Your task to perform on an android device: turn off improve location accuracy Image 0: 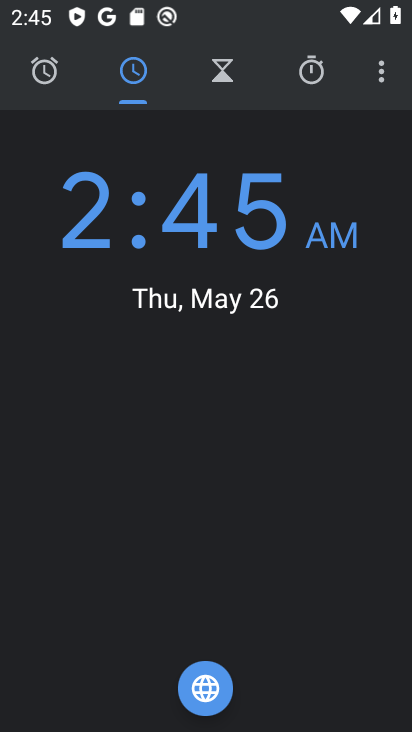
Step 0: press home button
Your task to perform on an android device: turn off improve location accuracy Image 1: 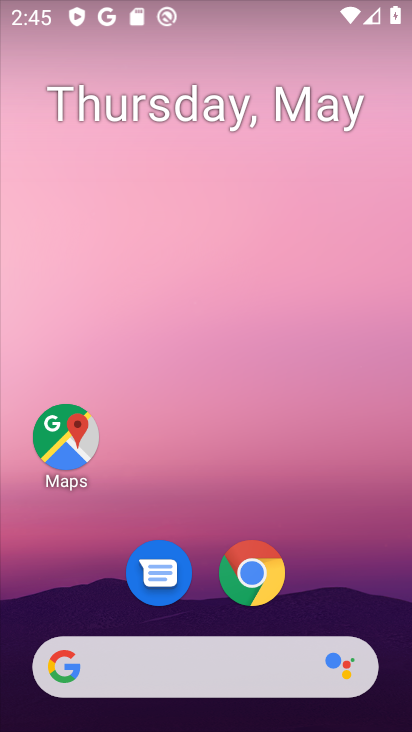
Step 1: drag from (71, 615) to (165, 131)
Your task to perform on an android device: turn off improve location accuracy Image 2: 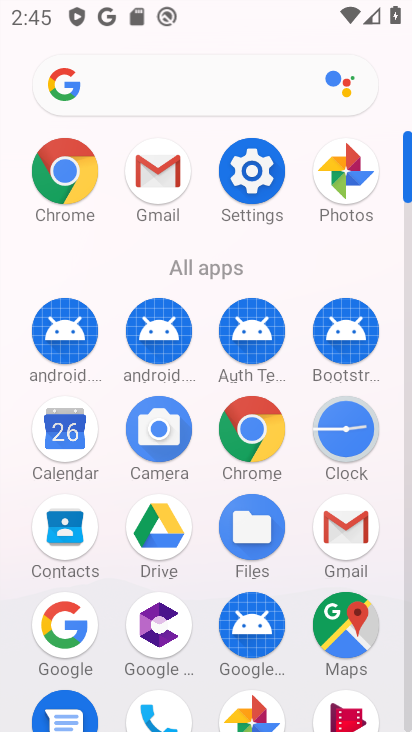
Step 2: drag from (144, 643) to (253, 292)
Your task to perform on an android device: turn off improve location accuracy Image 3: 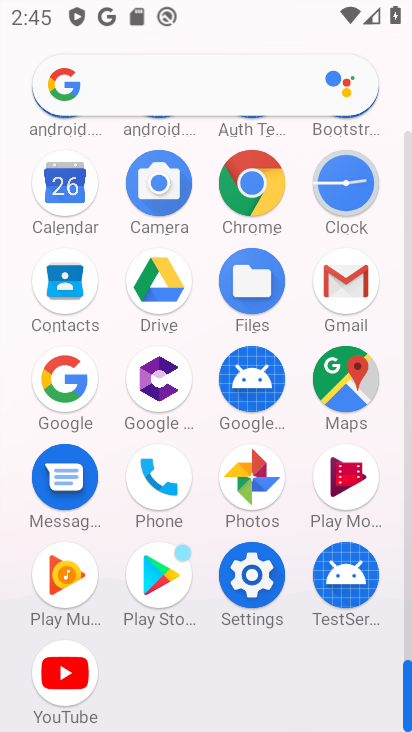
Step 3: click (258, 580)
Your task to perform on an android device: turn off improve location accuracy Image 4: 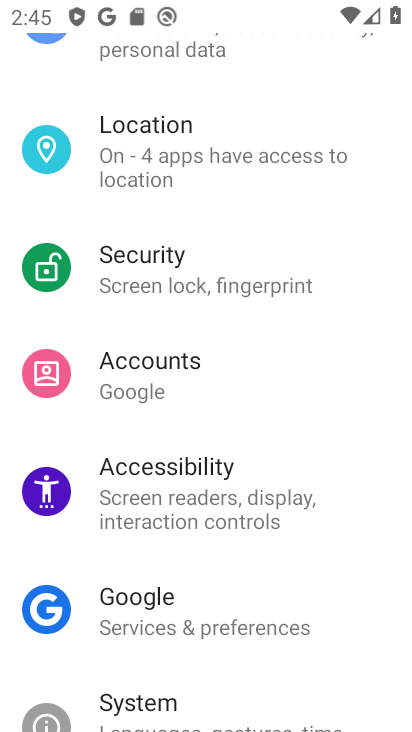
Step 4: drag from (256, 239) to (256, 645)
Your task to perform on an android device: turn off improve location accuracy Image 5: 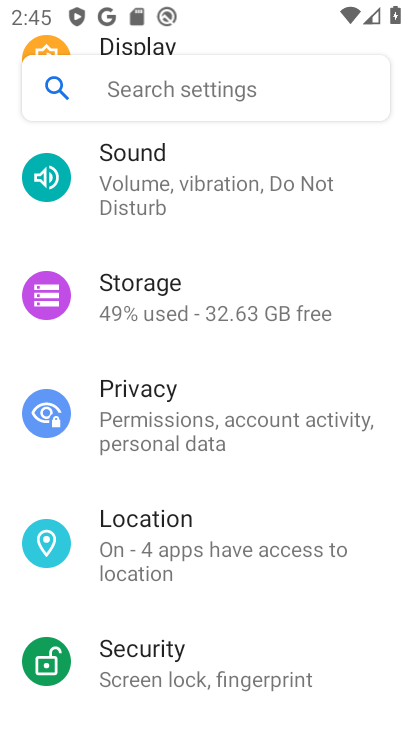
Step 5: click (200, 562)
Your task to perform on an android device: turn off improve location accuracy Image 6: 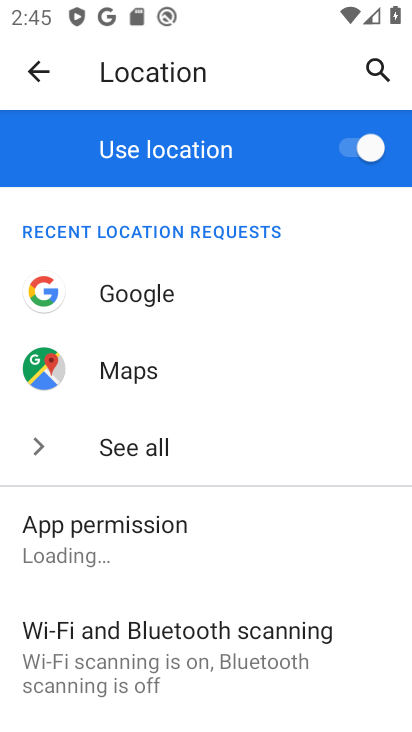
Step 6: drag from (191, 629) to (310, 257)
Your task to perform on an android device: turn off improve location accuracy Image 7: 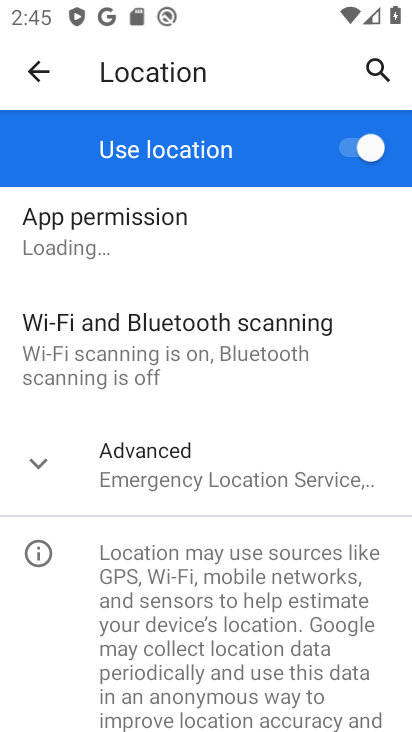
Step 7: click (206, 481)
Your task to perform on an android device: turn off improve location accuracy Image 8: 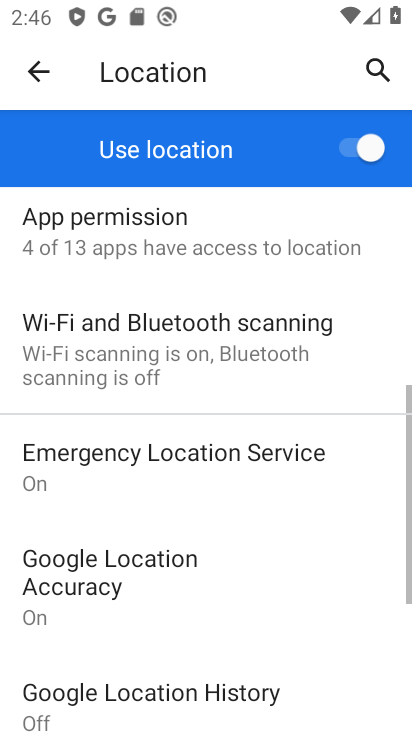
Step 8: drag from (196, 625) to (255, 414)
Your task to perform on an android device: turn off improve location accuracy Image 9: 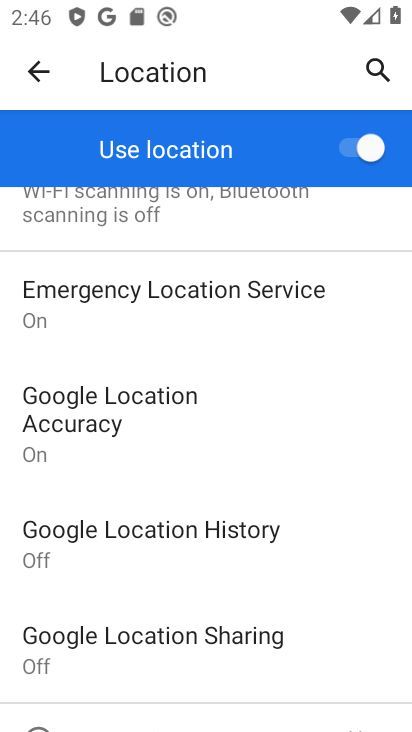
Step 9: click (199, 422)
Your task to perform on an android device: turn off improve location accuracy Image 10: 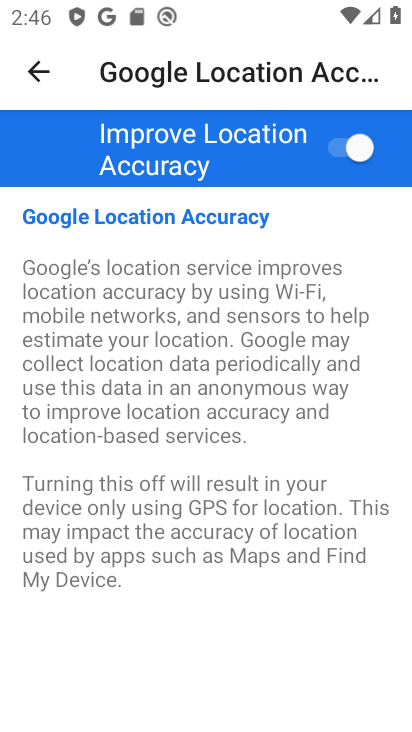
Step 10: click (346, 143)
Your task to perform on an android device: turn off improve location accuracy Image 11: 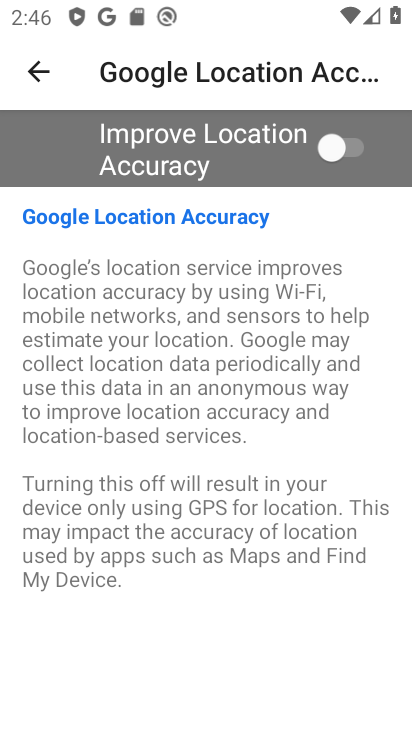
Step 11: task complete